Your task to perform on an android device: turn notification dots off Image 0: 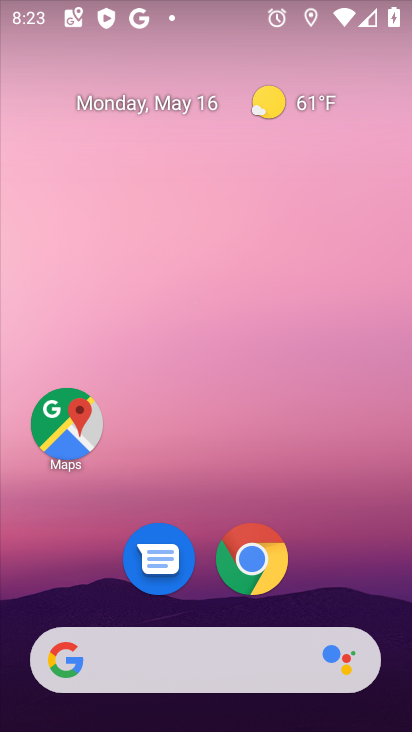
Step 0: drag from (363, 575) to (341, 147)
Your task to perform on an android device: turn notification dots off Image 1: 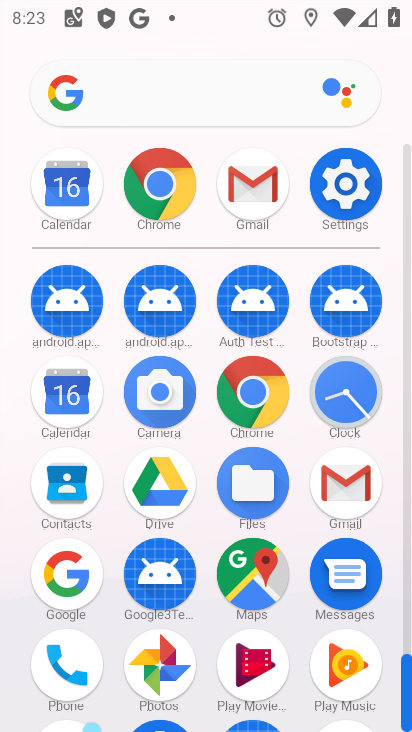
Step 1: click (335, 185)
Your task to perform on an android device: turn notification dots off Image 2: 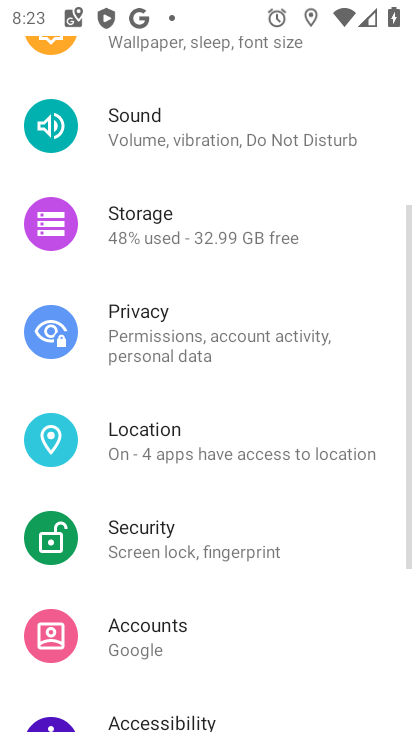
Step 2: drag from (241, 122) to (224, 589)
Your task to perform on an android device: turn notification dots off Image 3: 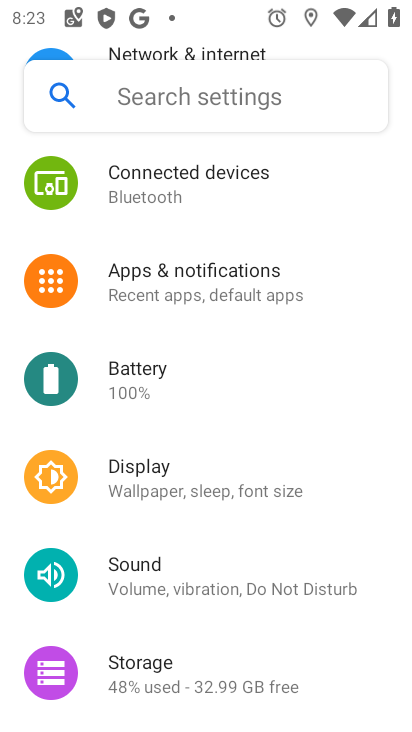
Step 3: click (233, 291)
Your task to perform on an android device: turn notification dots off Image 4: 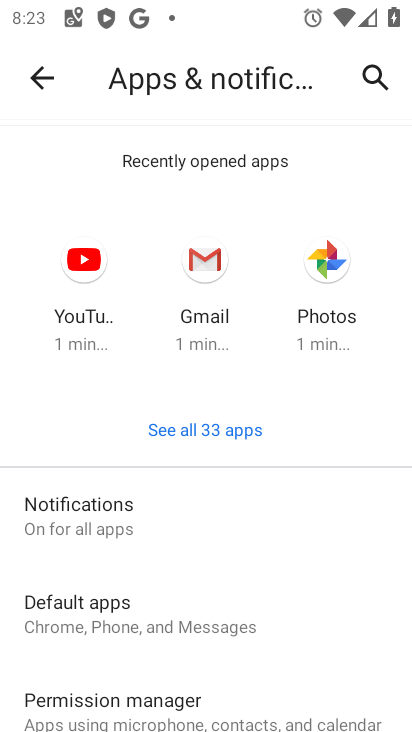
Step 4: click (118, 525)
Your task to perform on an android device: turn notification dots off Image 5: 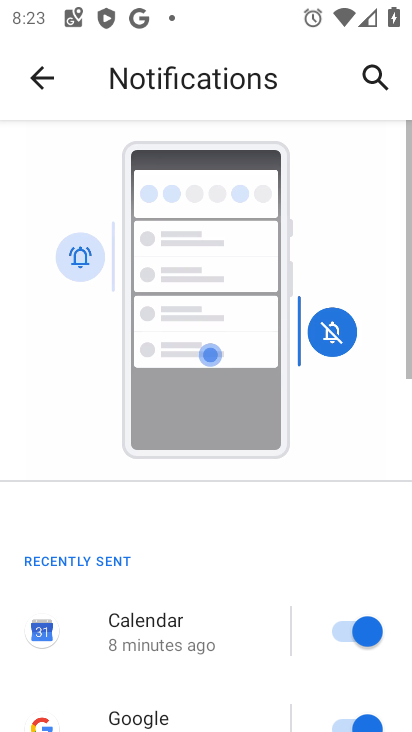
Step 5: drag from (227, 610) to (353, 159)
Your task to perform on an android device: turn notification dots off Image 6: 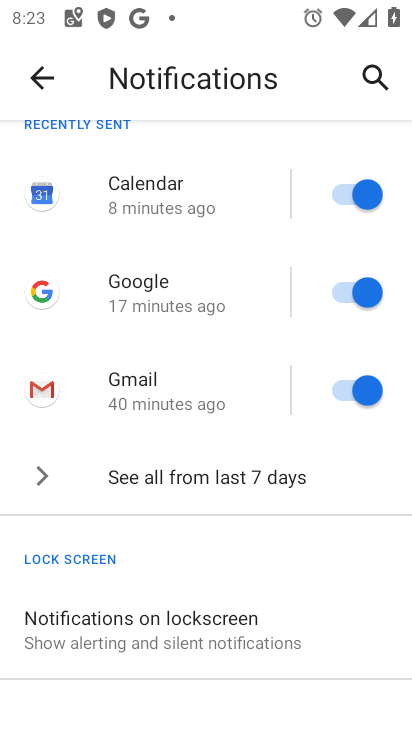
Step 6: drag from (318, 614) to (300, 184)
Your task to perform on an android device: turn notification dots off Image 7: 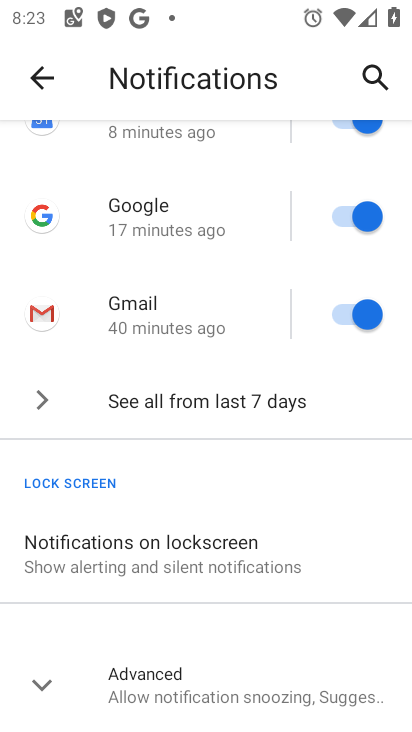
Step 7: click (241, 700)
Your task to perform on an android device: turn notification dots off Image 8: 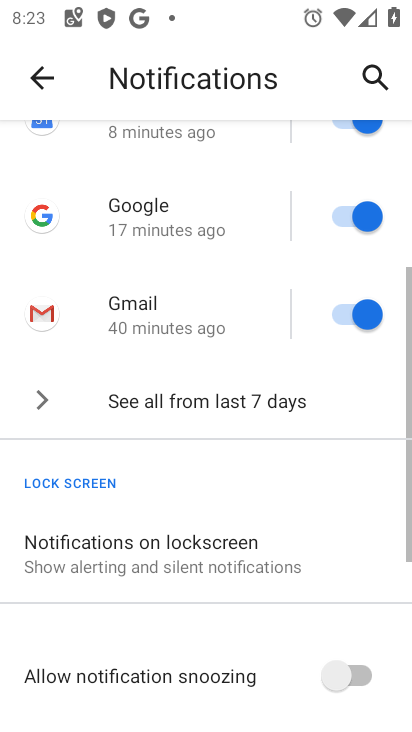
Step 8: drag from (242, 697) to (270, 328)
Your task to perform on an android device: turn notification dots off Image 9: 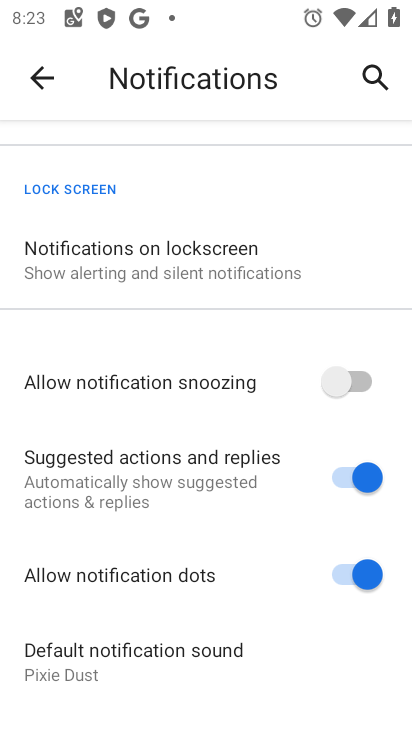
Step 9: click (337, 576)
Your task to perform on an android device: turn notification dots off Image 10: 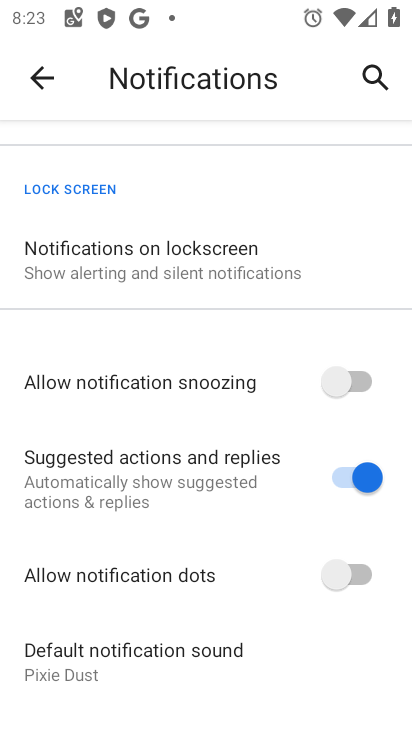
Step 10: task complete